Your task to perform on an android device: Open Android settings Image 0: 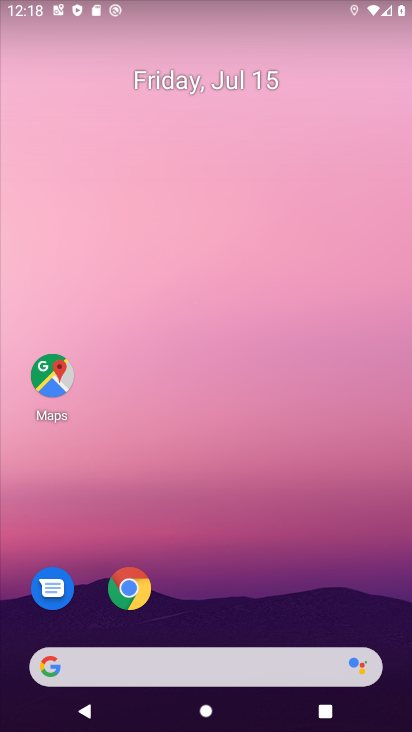
Step 0: drag from (149, 526) to (268, 62)
Your task to perform on an android device: Open Android settings Image 1: 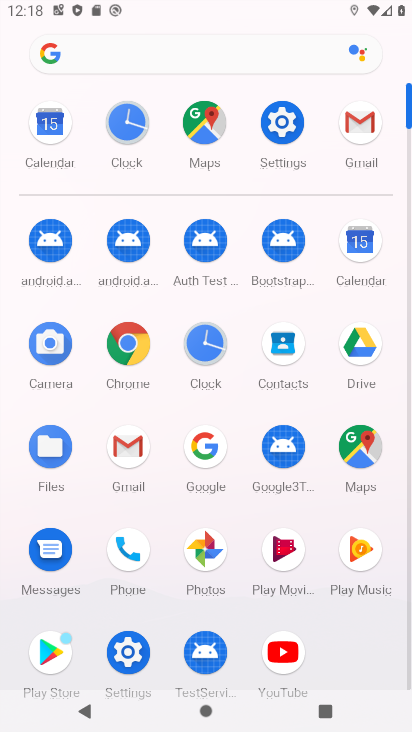
Step 1: click (115, 653)
Your task to perform on an android device: Open Android settings Image 2: 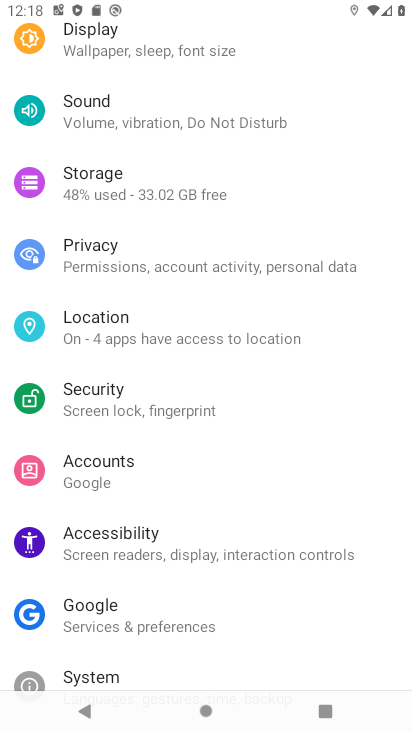
Step 2: drag from (237, 442) to (260, 136)
Your task to perform on an android device: Open Android settings Image 3: 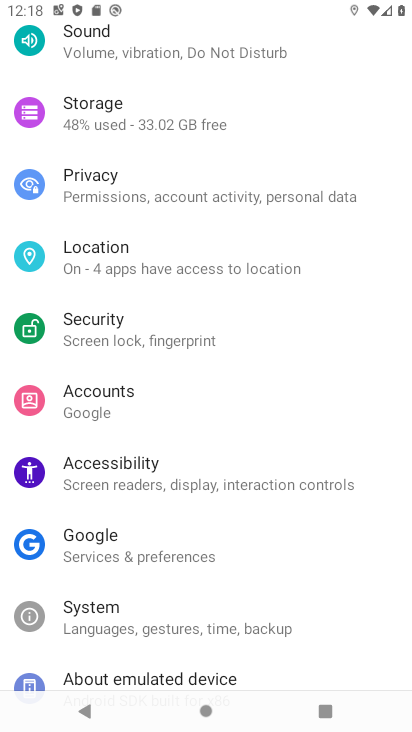
Step 3: drag from (267, 594) to (264, 111)
Your task to perform on an android device: Open Android settings Image 4: 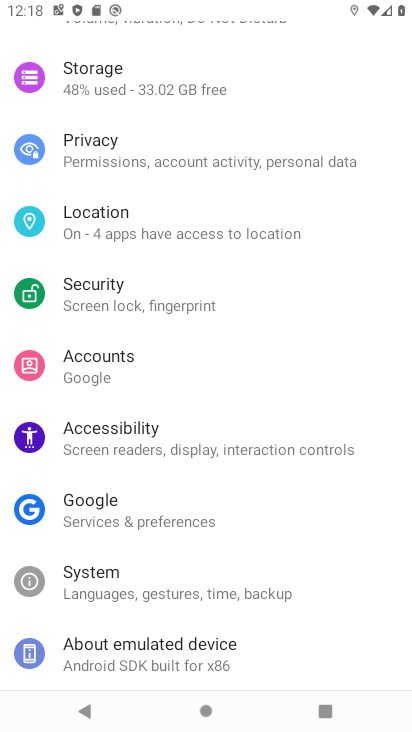
Step 4: drag from (275, 614) to (256, 102)
Your task to perform on an android device: Open Android settings Image 5: 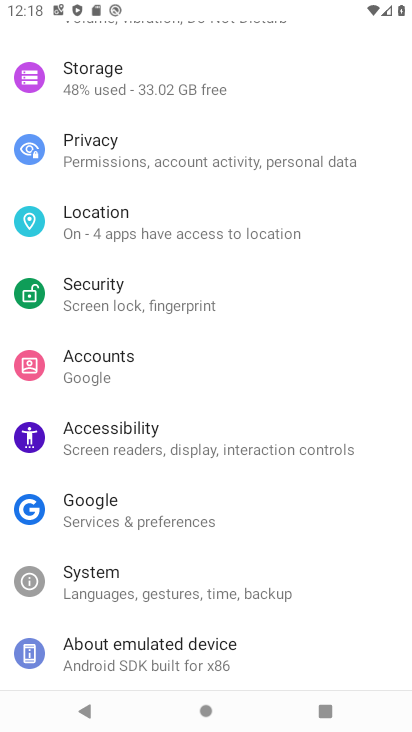
Step 5: click (193, 655)
Your task to perform on an android device: Open Android settings Image 6: 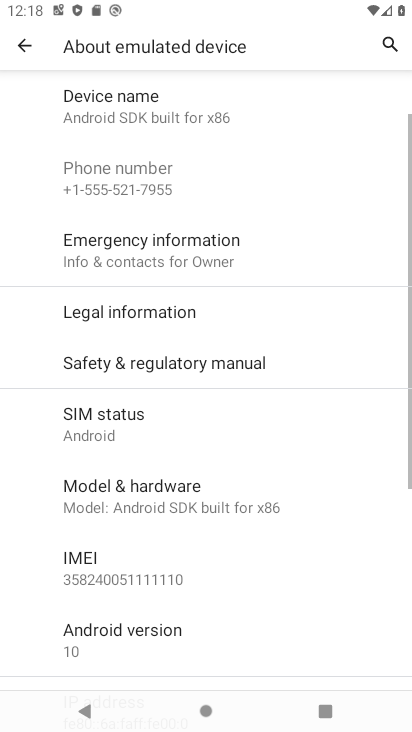
Step 6: task complete